Your task to perform on an android device: turn on sleep mode Image 0: 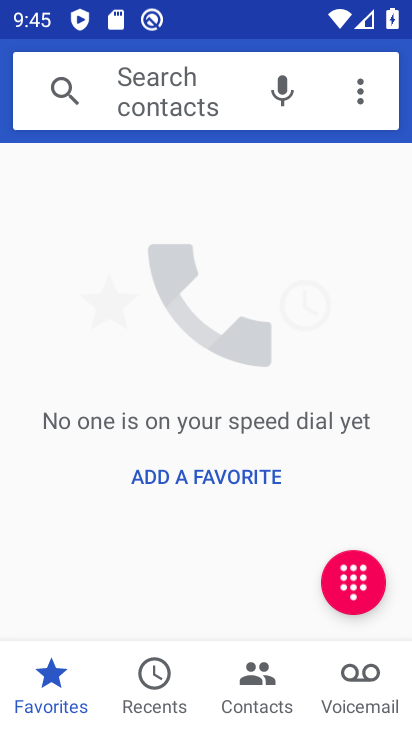
Step 0: task complete